Your task to perform on an android device: choose inbox layout in the gmail app Image 0: 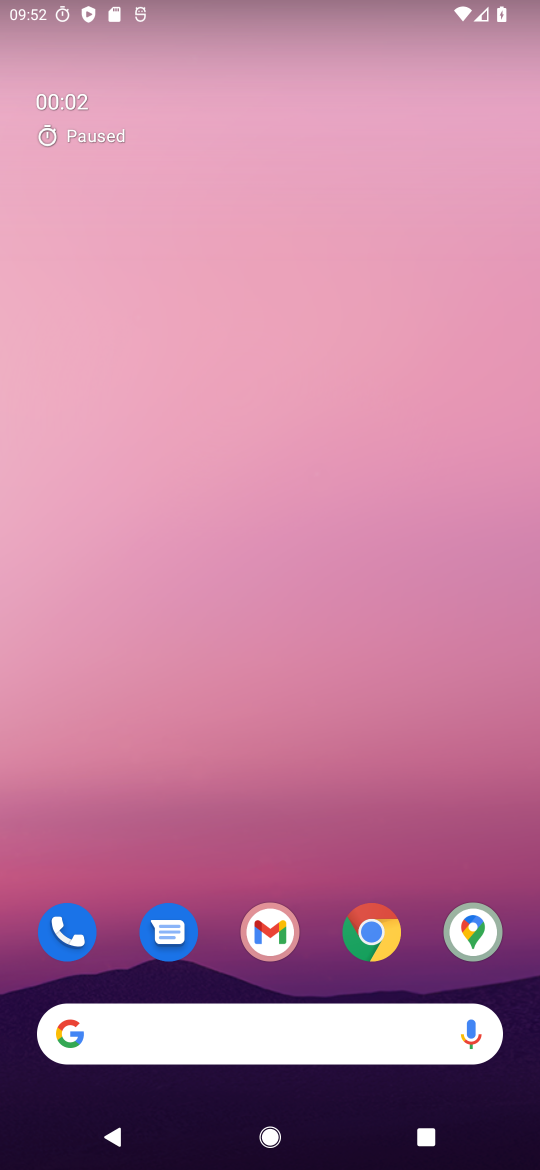
Step 0: drag from (311, 1018) to (400, 282)
Your task to perform on an android device: choose inbox layout in the gmail app Image 1: 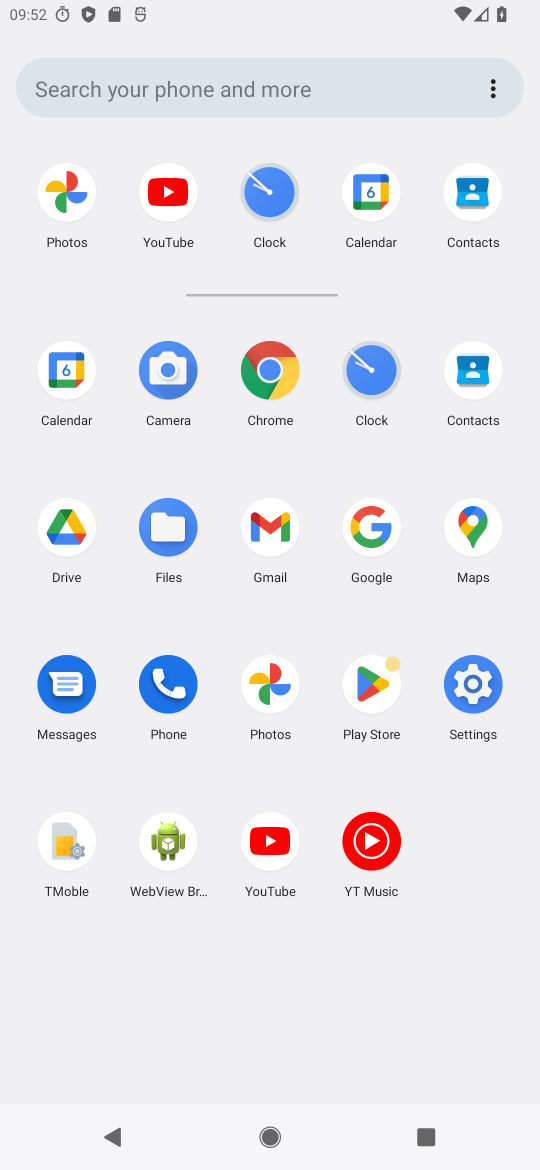
Step 1: click (270, 533)
Your task to perform on an android device: choose inbox layout in the gmail app Image 2: 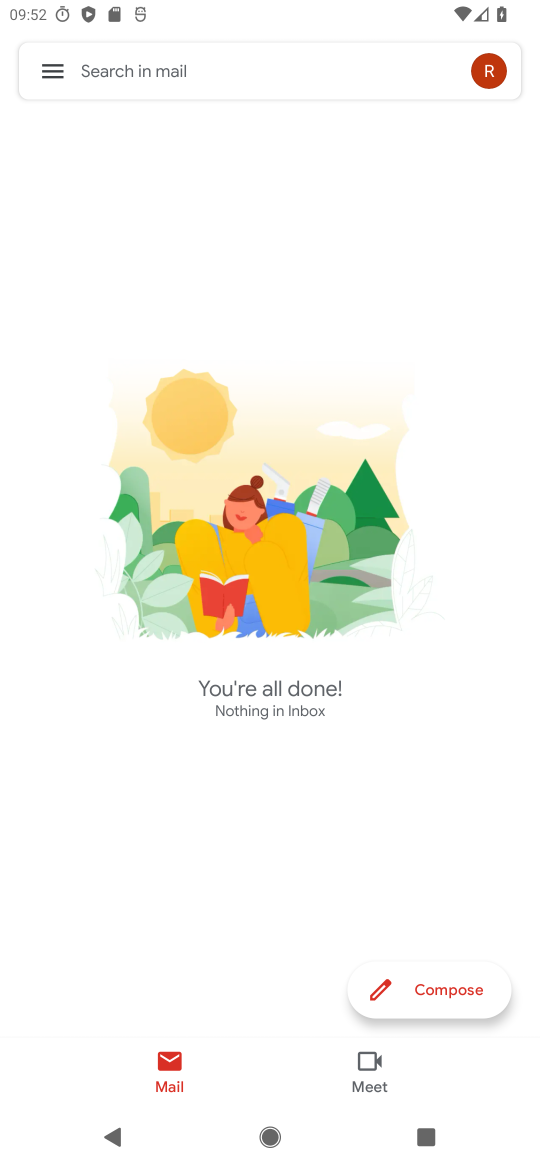
Step 2: click (44, 55)
Your task to perform on an android device: choose inbox layout in the gmail app Image 3: 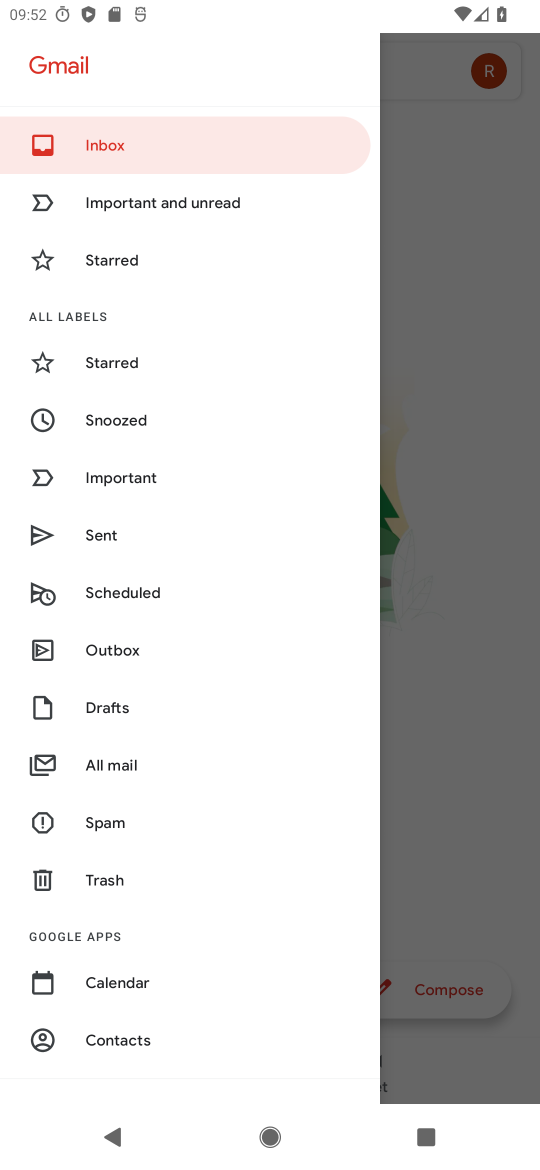
Step 3: drag from (201, 971) to (347, 221)
Your task to perform on an android device: choose inbox layout in the gmail app Image 4: 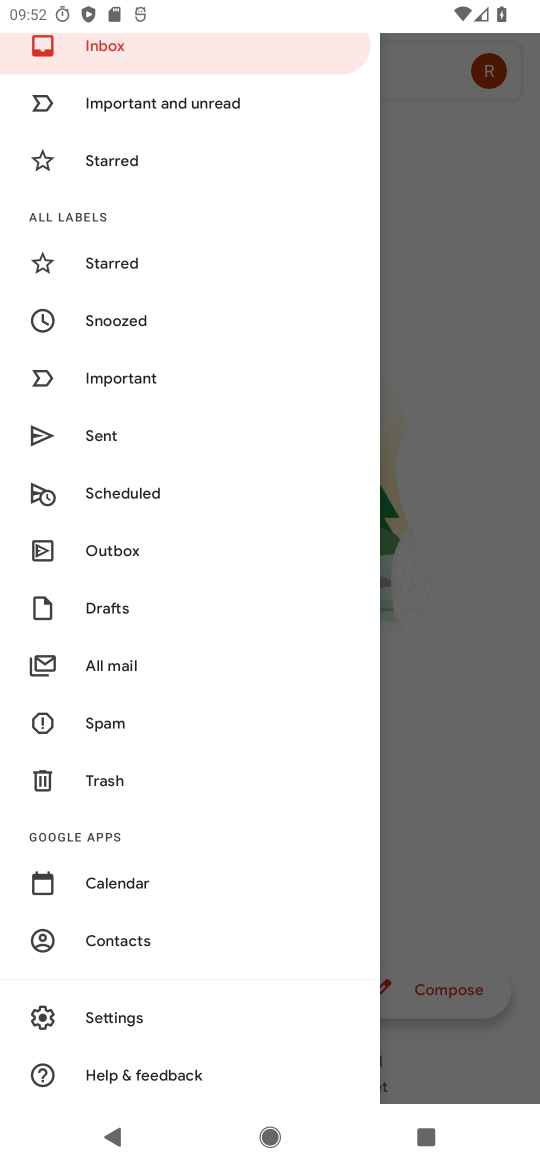
Step 4: click (131, 1015)
Your task to perform on an android device: choose inbox layout in the gmail app Image 5: 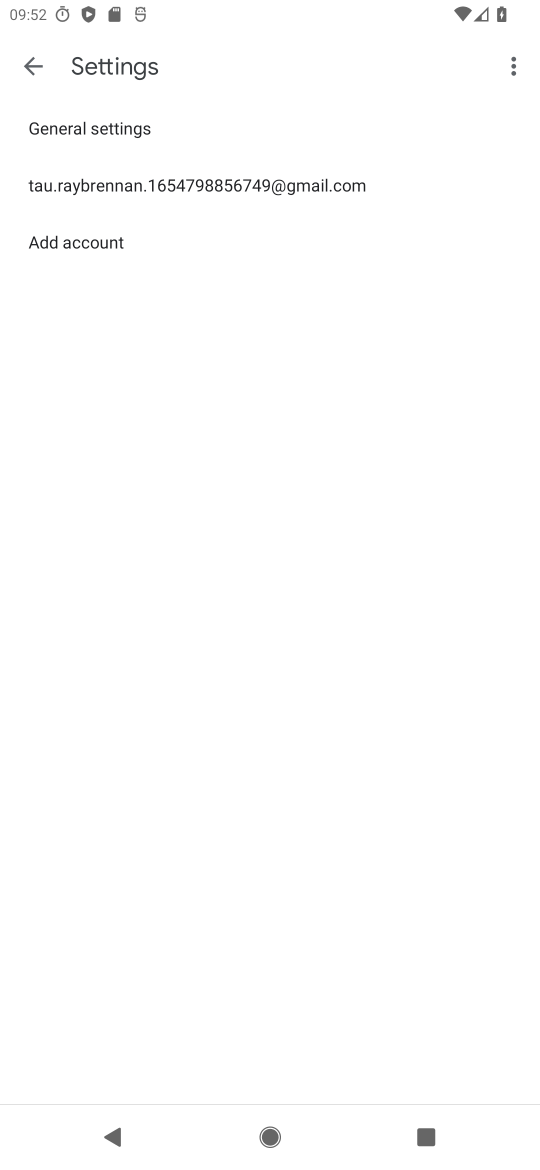
Step 5: click (210, 184)
Your task to perform on an android device: choose inbox layout in the gmail app Image 6: 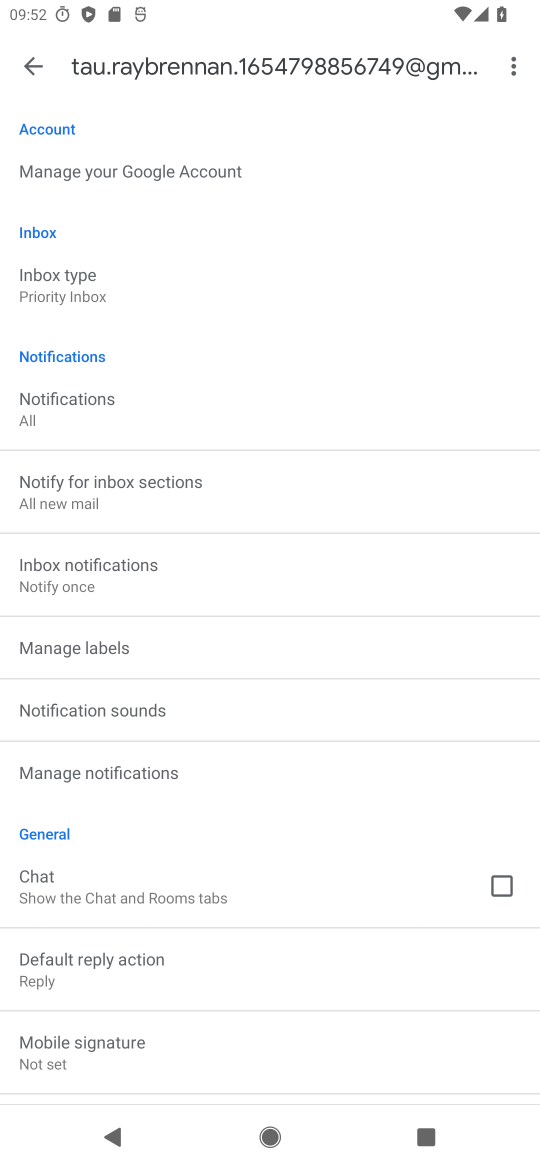
Step 6: click (78, 272)
Your task to perform on an android device: choose inbox layout in the gmail app Image 7: 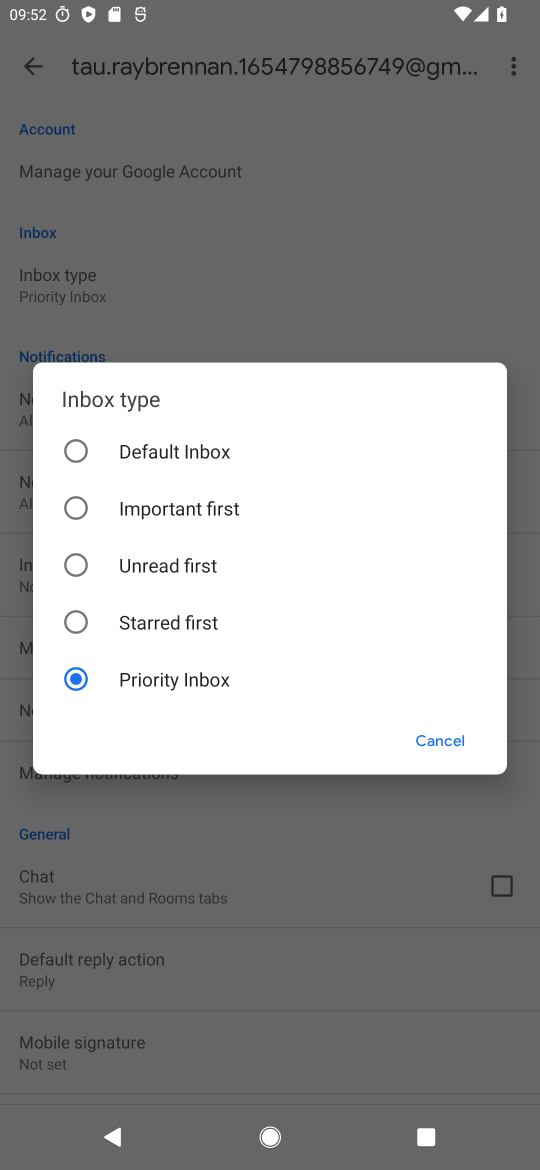
Step 7: click (80, 449)
Your task to perform on an android device: choose inbox layout in the gmail app Image 8: 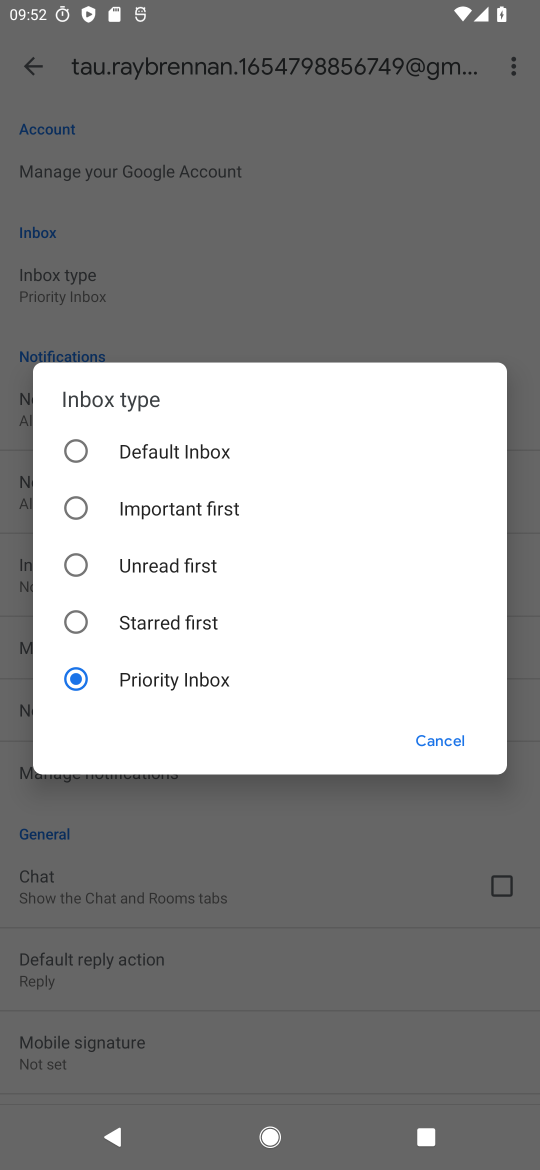
Step 8: click (87, 446)
Your task to perform on an android device: choose inbox layout in the gmail app Image 9: 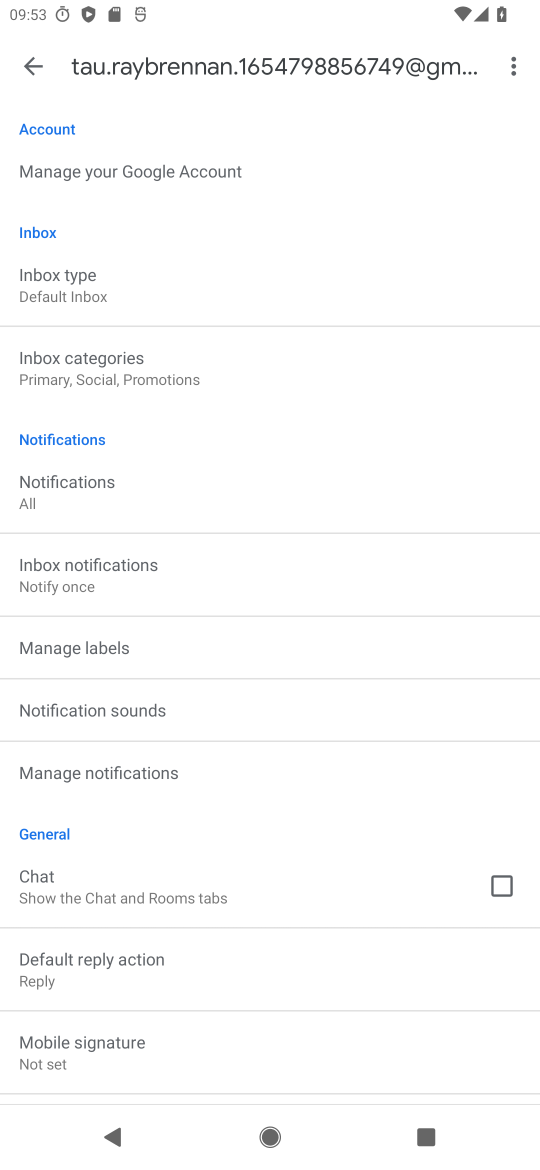
Step 9: task complete